Your task to perform on an android device: Open Google Maps Image 0: 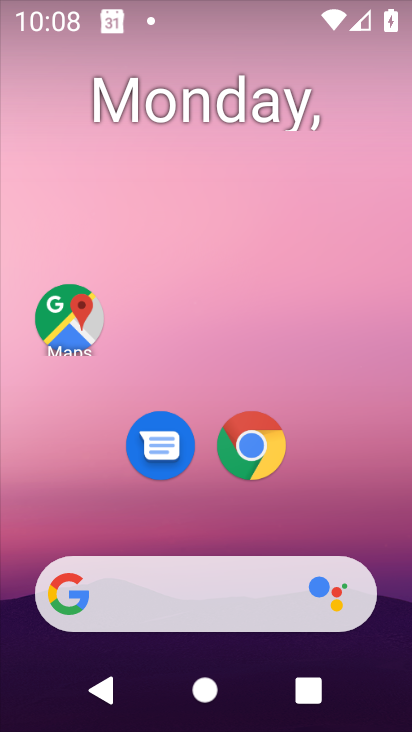
Step 0: click (40, 324)
Your task to perform on an android device: Open Google Maps Image 1: 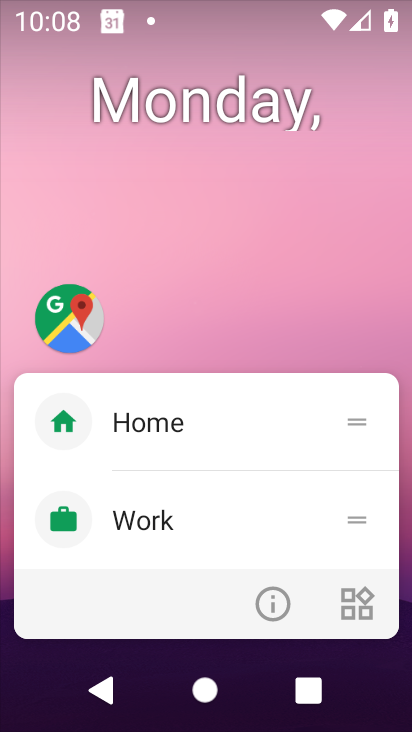
Step 1: click (90, 324)
Your task to perform on an android device: Open Google Maps Image 2: 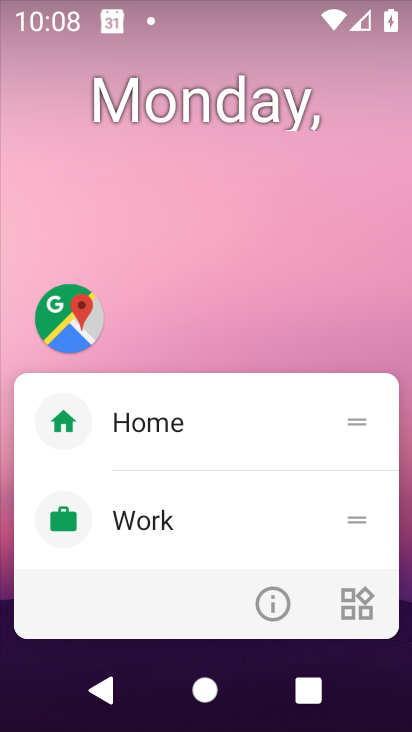
Step 2: click (53, 304)
Your task to perform on an android device: Open Google Maps Image 3: 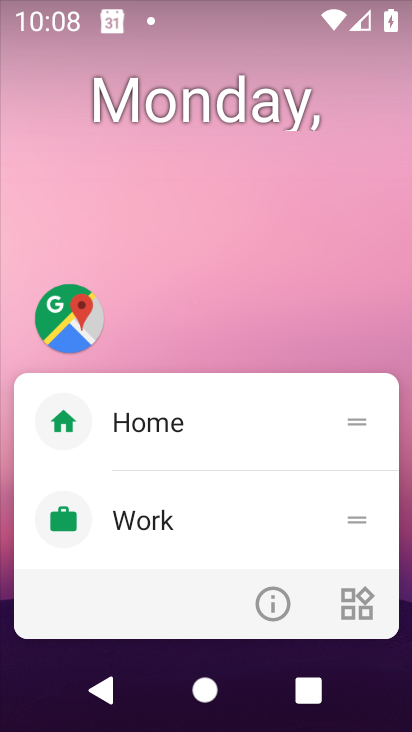
Step 3: click (51, 306)
Your task to perform on an android device: Open Google Maps Image 4: 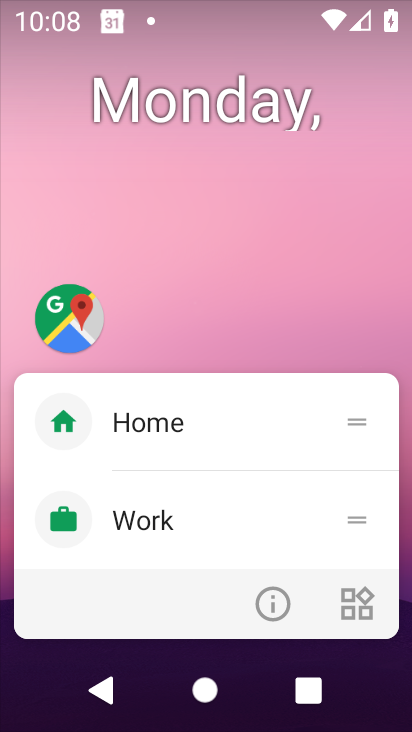
Step 4: click (47, 310)
Your task to perform on an android device: Open Google Maps Image 5: 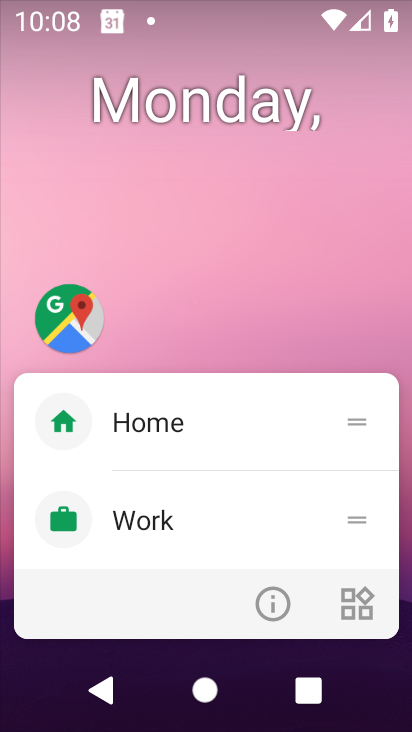
Step 5: click (47, 310)
Your task to perform on an android device: Open Google Maps Image 6: 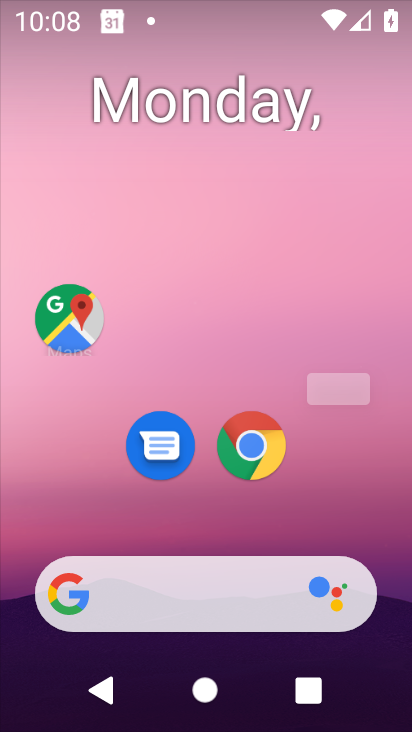
Step 6: click (47, 310)
Your task to perform on an android device: Open Google Maps Image 7: 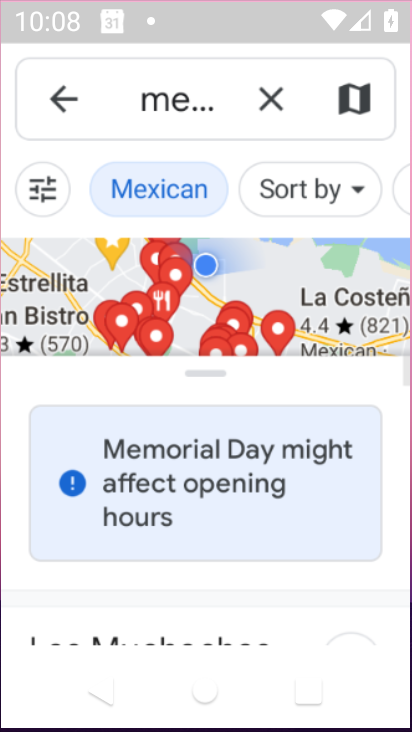
Step 7: click (47, 310)
Your task to perform on an android device: Open Google Maps Image 8: 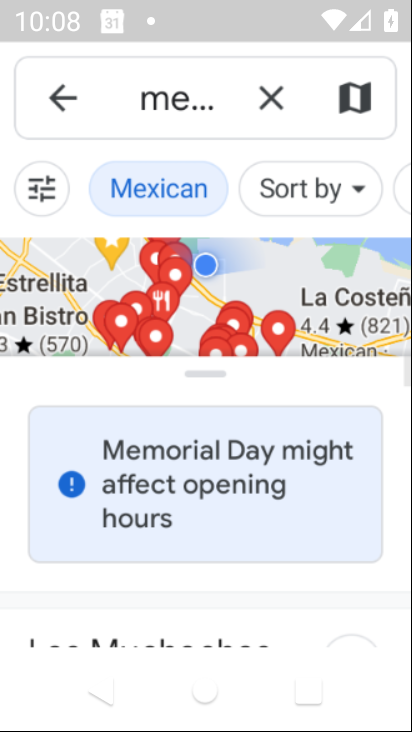
Step 8: click (47, 310)
Your task to perform on an android device: Open Google Maps Image 9: 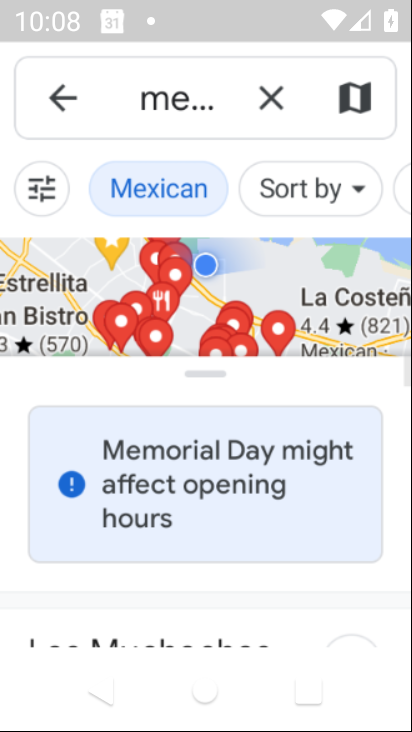
Step 9: click (47, 310)
Your task to perform on an android device: Open Google Maps Image 10: 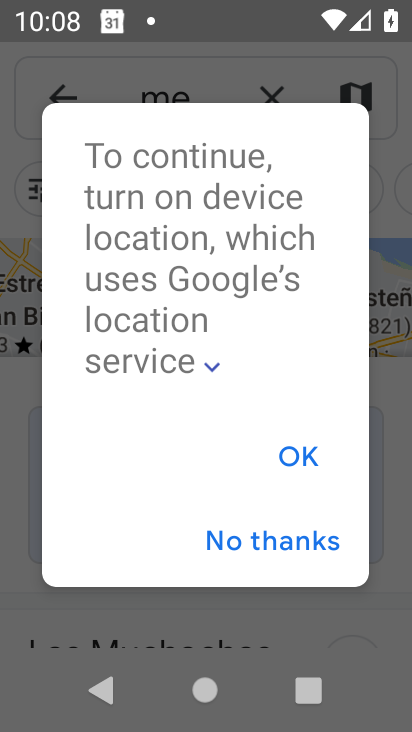
Step 10: click (289, 453)
Your task to perform on an android device: Open Google Maps Image 11: 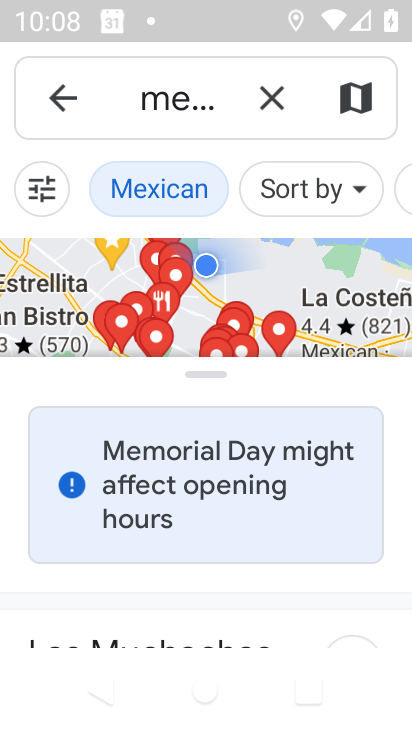
Step 11: task complete